Your task to perform on an android device: Clear all items from cart on walmart. Add "corsair k70" to the cart on walmart, then select checkout. Image 0: 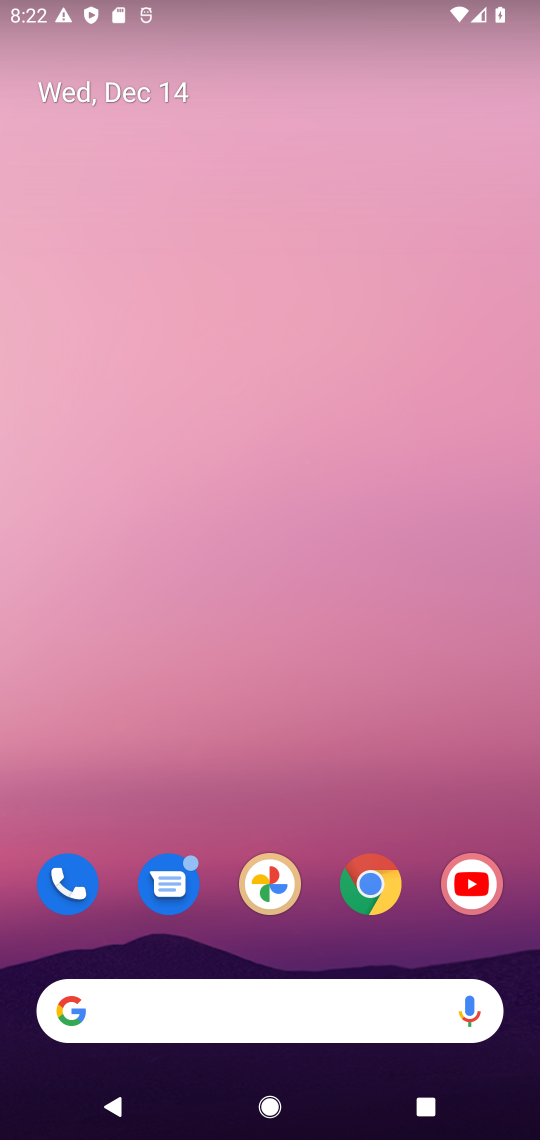
Step 0: click (352, 886)
Your task to perform on an android device: Clear all items from cart on walmart. Add "corsair k70" to the cart on walmart, then select checkout. Image 1: 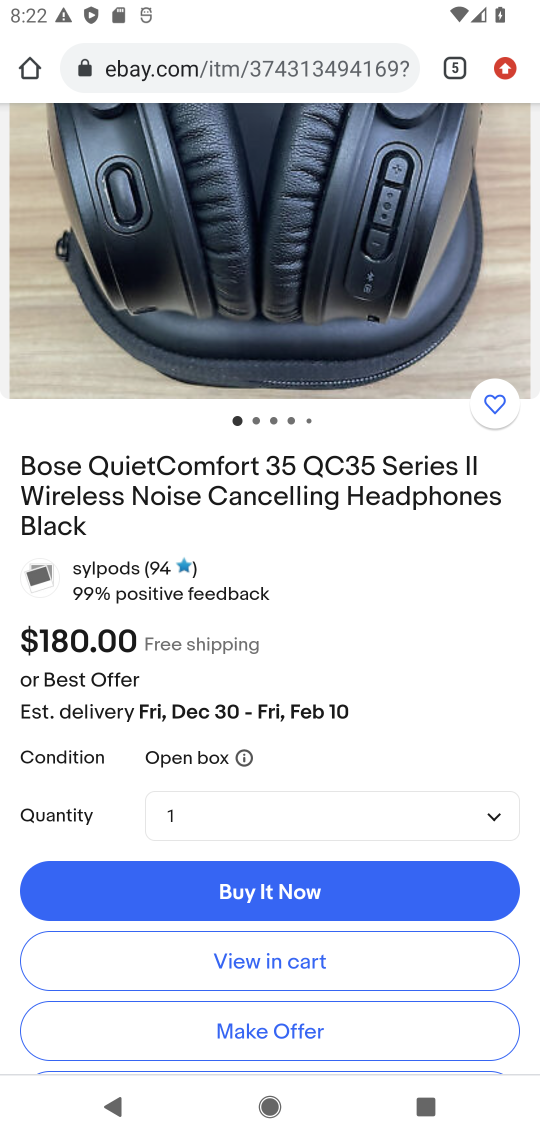
Step 1: click (455, 60)
Your task to perform on an android device: Clear all items from cart on walmart. Add "corsair k70" to the cart on walmart, then select checkout. Image 2: 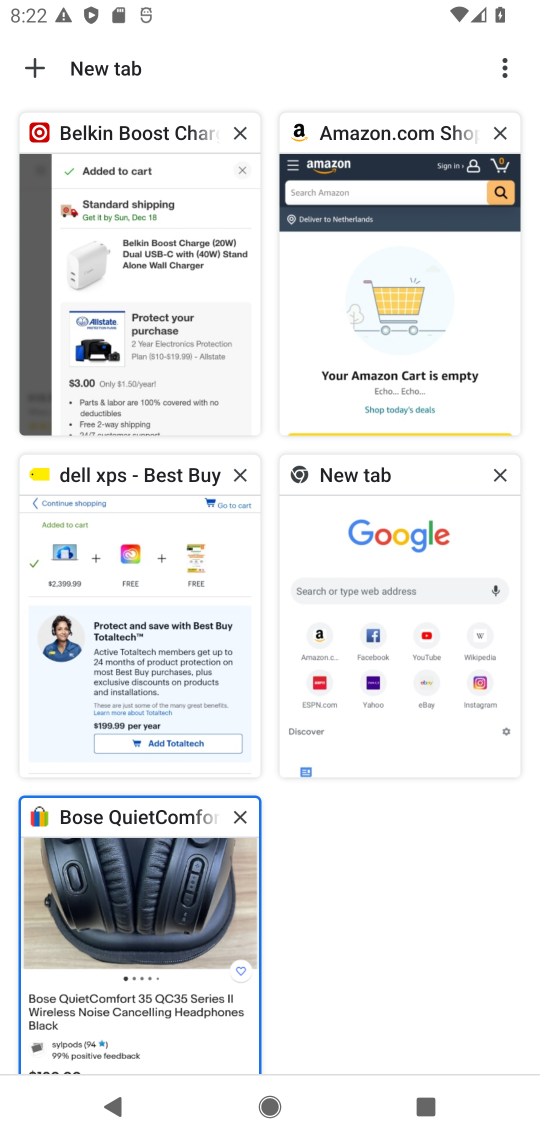
Step 2: click (341, 589)
Your task to perform on an android device: Clear all items from cart on walmart. Add "corsair k70" to the cart on walmart, then select checkout. Image 3: 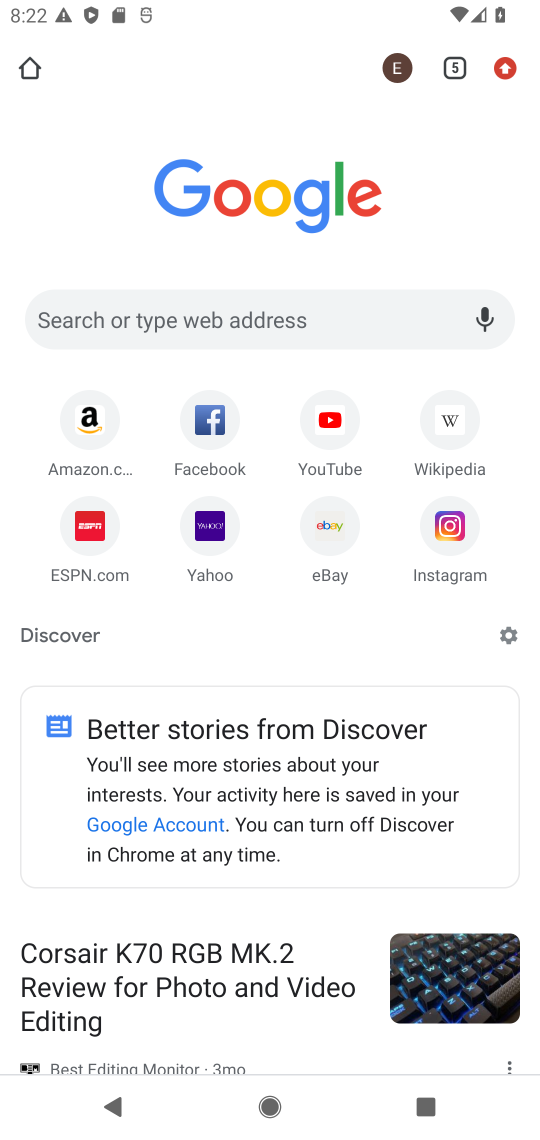
Step 3: click (264, 314)
Your task to perform on an android device: Clear all items from cart on walmart. Add "corsair k70" to the cart on walmart, then select checkout. Image 4: 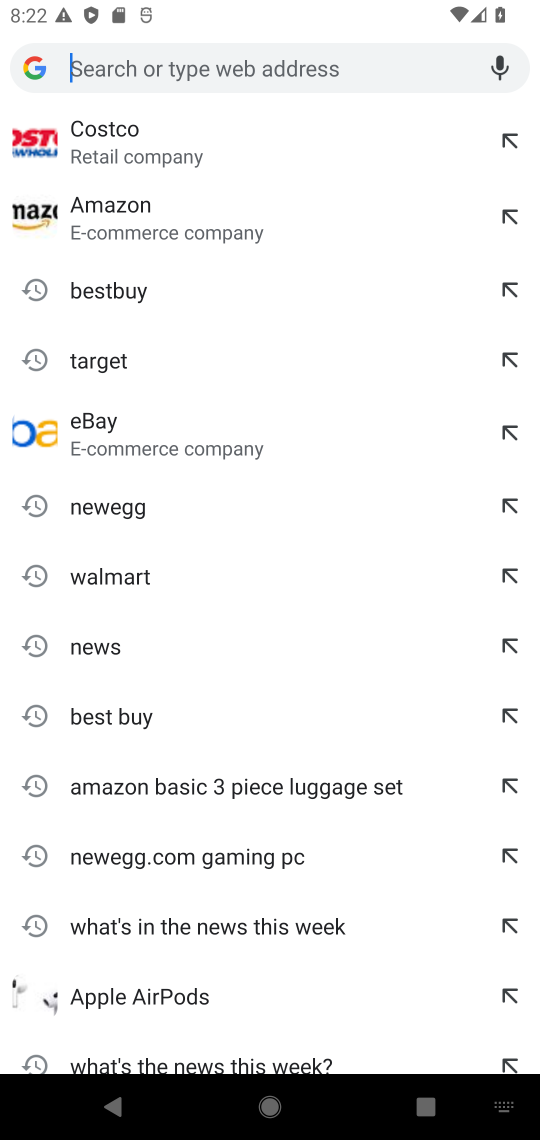
Step 4: click (114, 571)
Your task to perform on an android device: Clear all items from cart on walmart. Add "corsair k70" to the cart on walmart, then select checkout. Image 5: 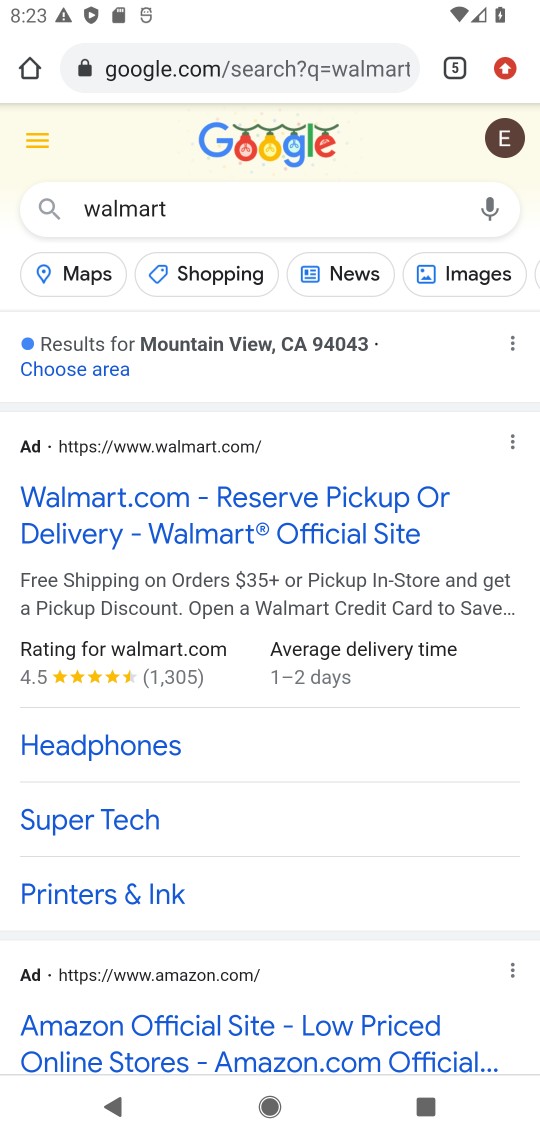
Step 5: click (126, 520)
Your task to perform on an android device: Clear all items from cart on walmart. Add "corsair k70" to the cart on walmart, then select checkout. Image 6: 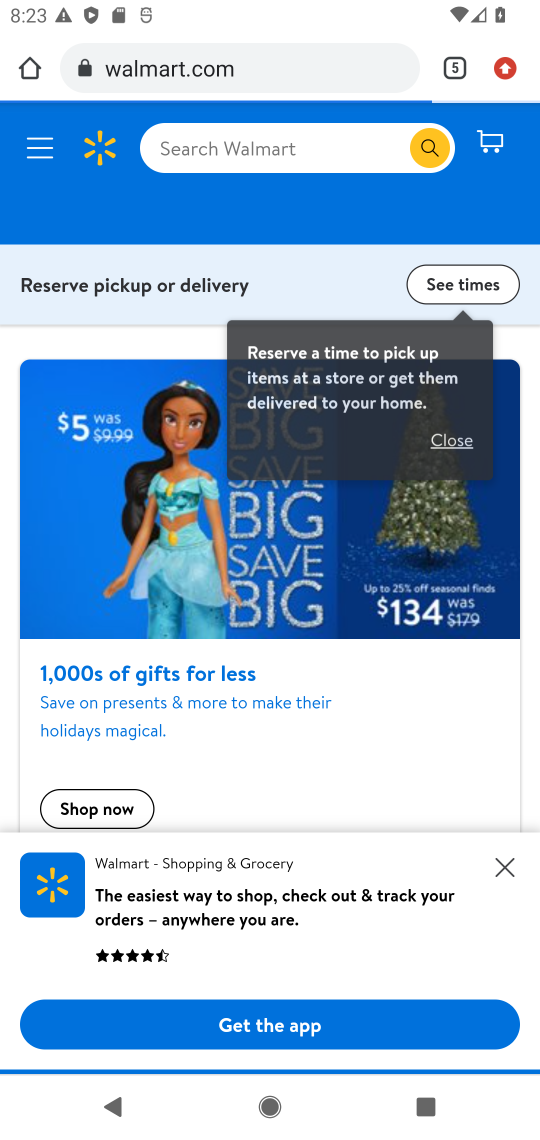
Step 6: click (197, 149)
Your task to perform on an android device: Clear all items from cart on walmart. Add "corsair k70" to the cart on walmart, then select checkout. Image 7: 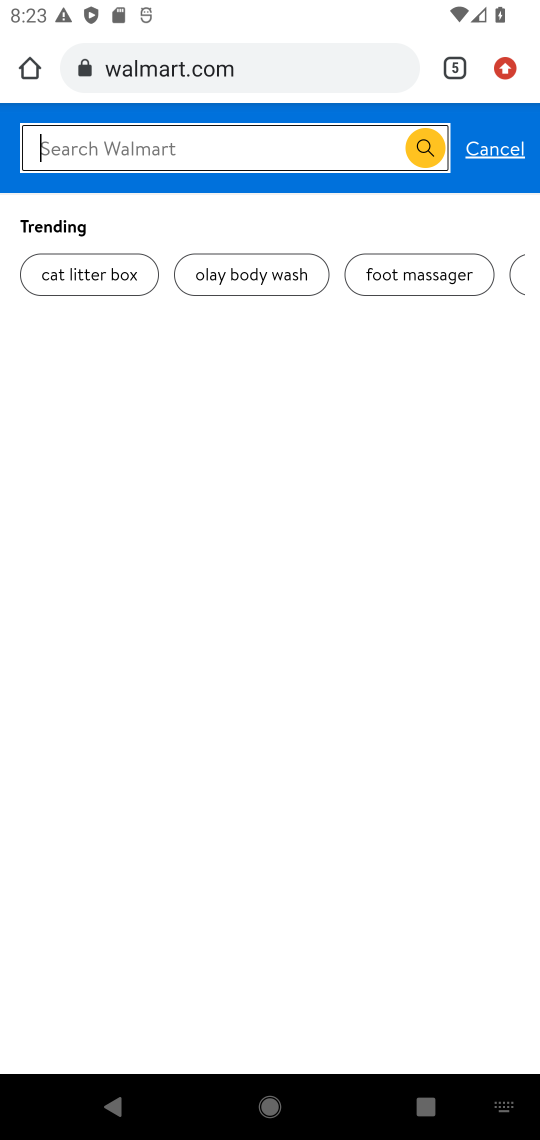
Step 7: type "corsair k70"
Your task to perform on an android device: Clear all items from cart on walmart. Add "corsair k70" to the cart on walmart, then select checkout. Image 8: 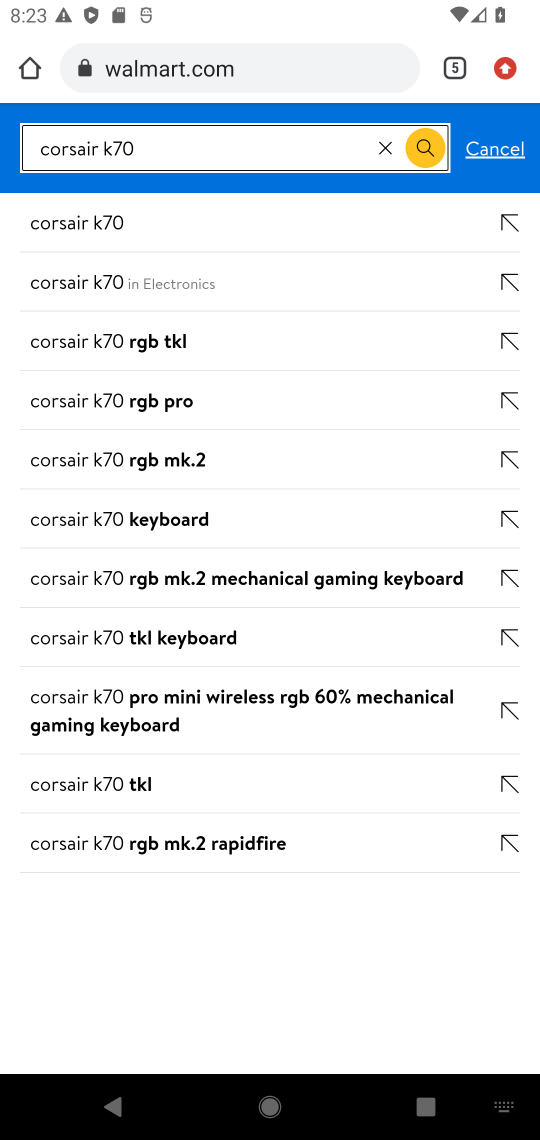
Step 8: click (109, 292)
Your task to perform on an android device: Clear all items from cart on walmart. Add "corsair k70" to the cart on walmart, then select checkout. Image 9: 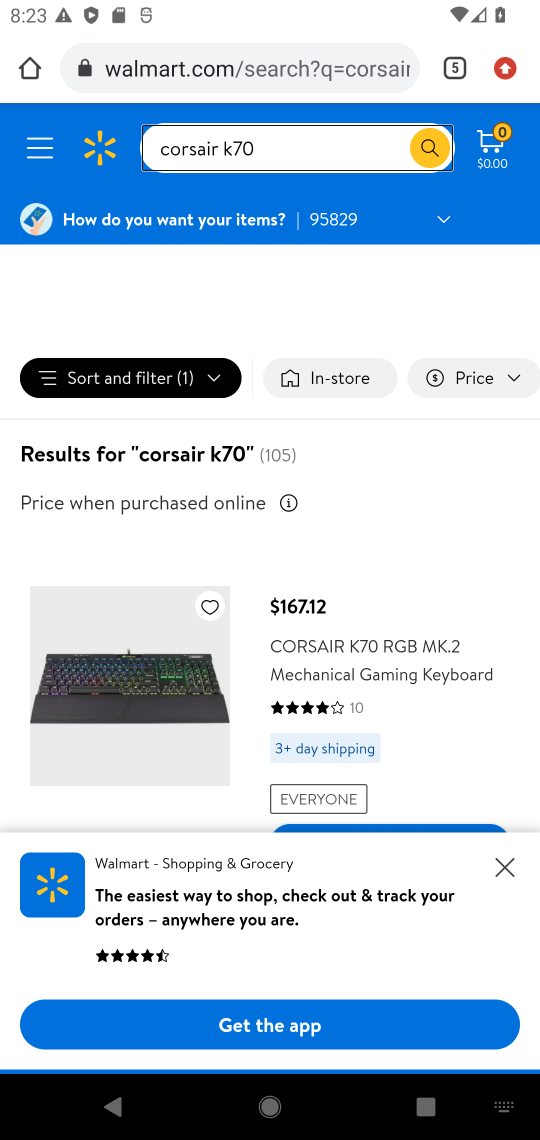
Step 9: click (501, 859)
Your task to perform on an android device: Clear all items from cart on walmart. Add "corsair k70" to the cart on walmart, then select checkout. Image 10: 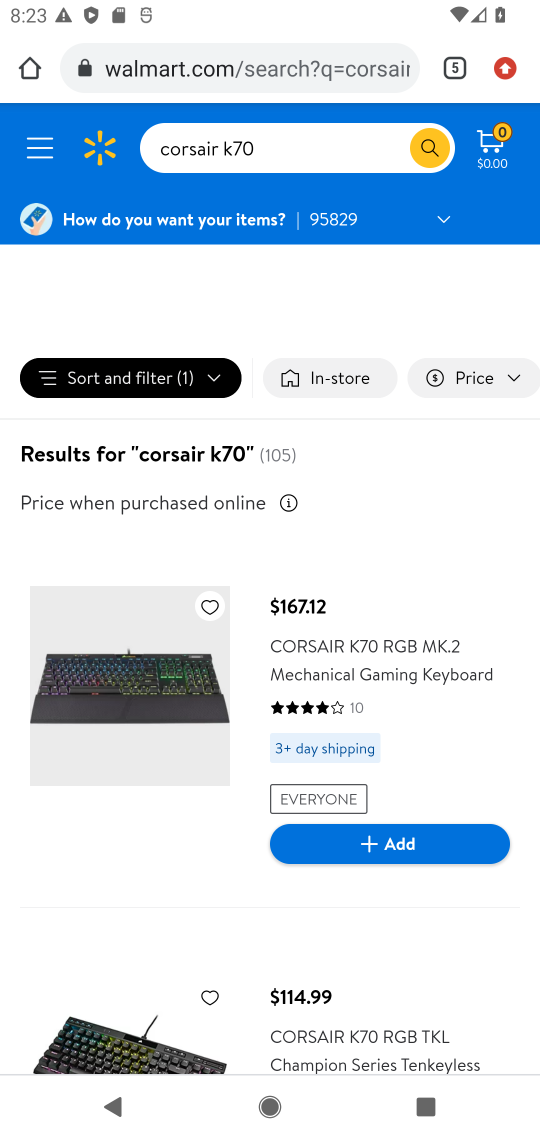
Step 10: click (436, 843)
Your task to perform on an android device: Clear all items from cart on walmart. Add "corsair k70" to the cart on walmart, then select checkout. Image 11: 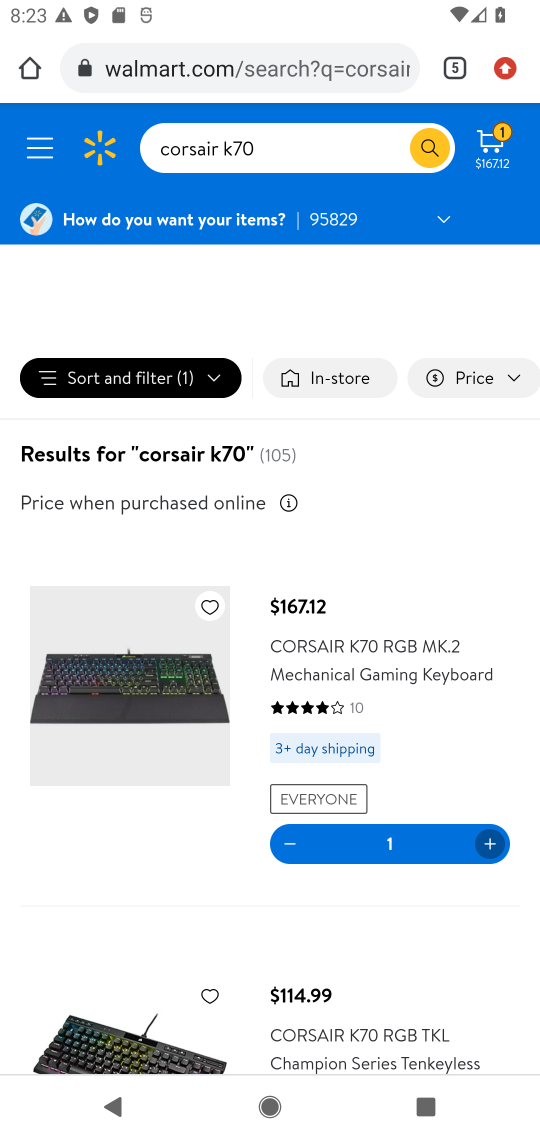
Step 11: click (504, 870)
Your task to perform on an android device: Clear all items from cart on walmart. Add "corsair k70" to the cart on walmart, then select checkout. Image 12: 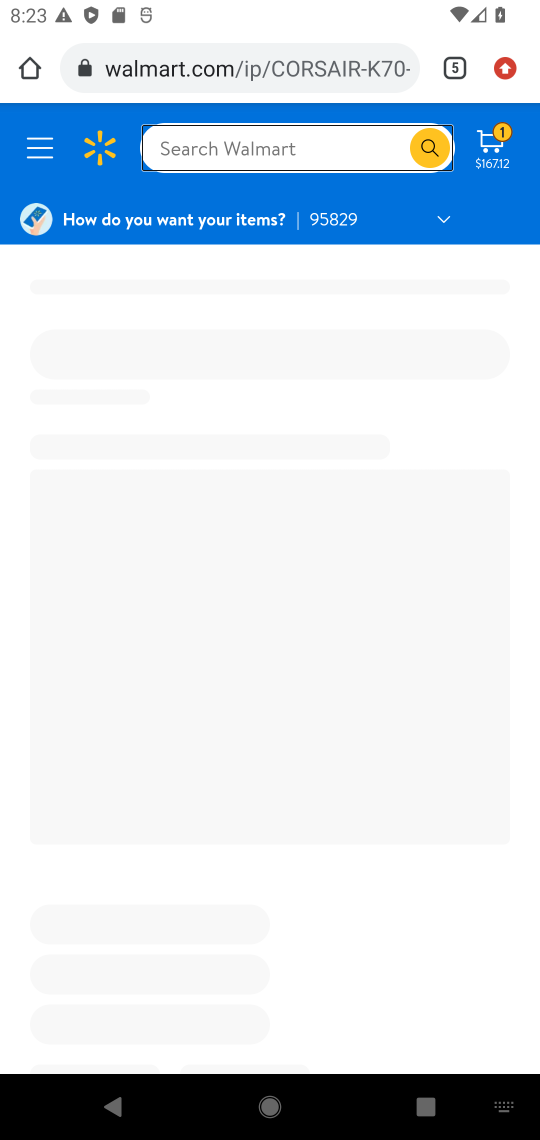
Step 12: task complete